Your task to perform on an android device: Play the last video I watched on Youtube Image 0: 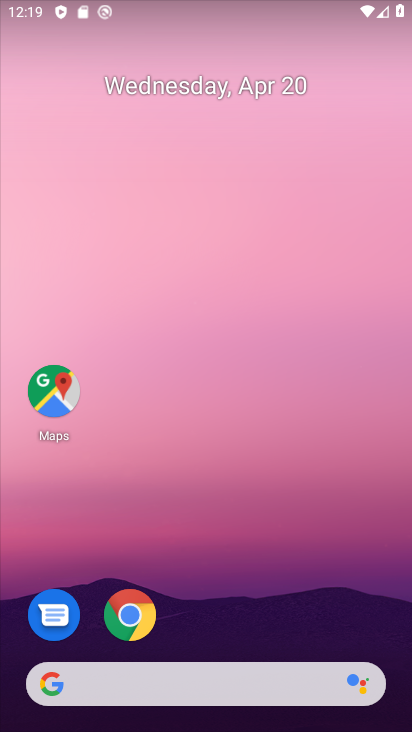
Step 0: drag from (192, 651) to (245, 62)
Your task to perform on an android device: Play the last video I watched on Youtube Image 1: 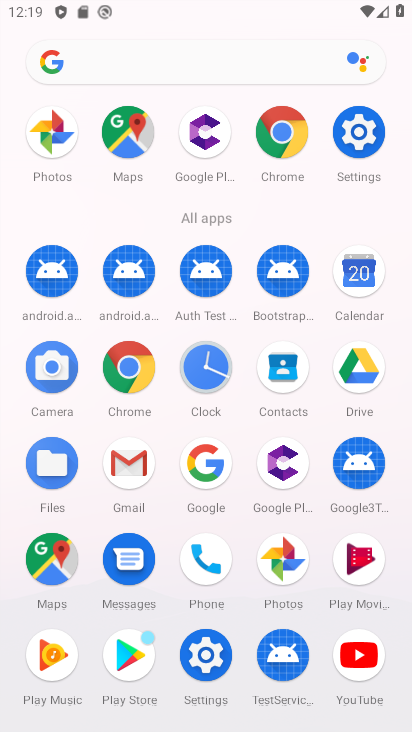
Step 1: drag from (304, 660) to (335, 411)
Your task to perform on an android device: Play the last video I watched on Youtube Image 2: 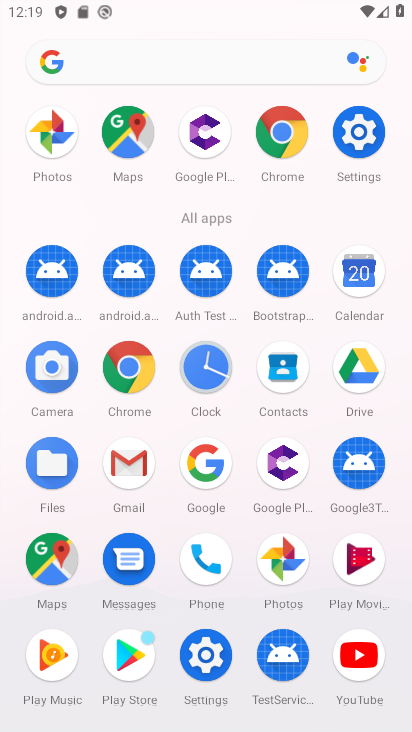
Step 2: click (366, 666)
Your task to perform on an android device: Play the last video I watched on Youtube Image 3: 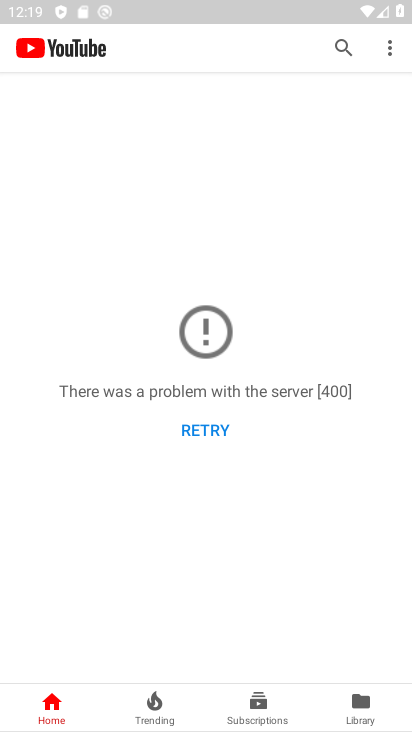
Step 3: click (350, 702)
Your task to perform on an android device: Play the last video I watched on Youtube Image 4: 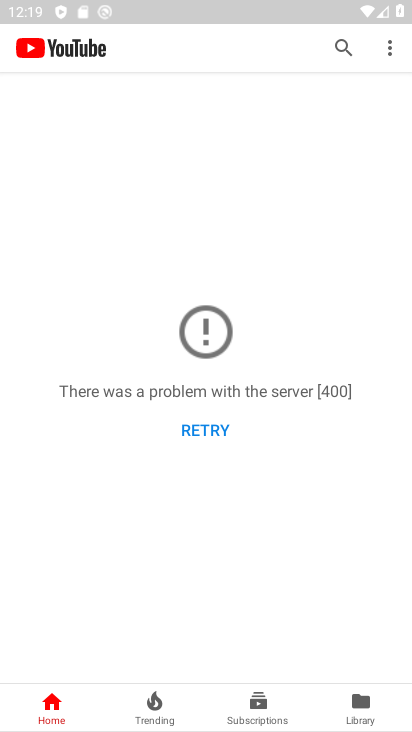
Step 4: click (351, 702)
Your task to perform on an android device: Play the last video I watched on Youtube Image 5: 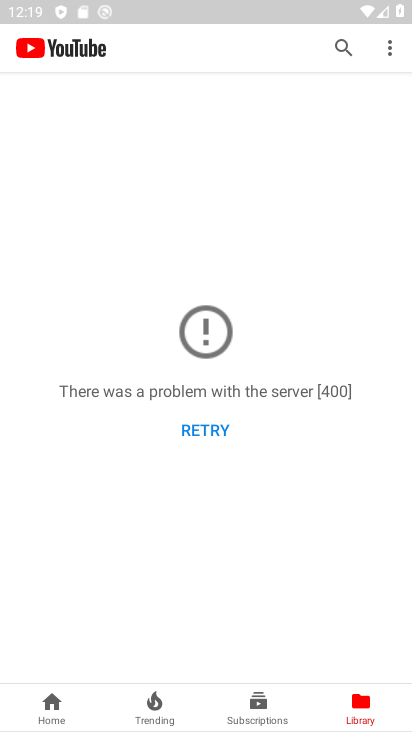
Step 5: task complete